Your task to perform on an android device: Find coffee shops on Maps Image 0: 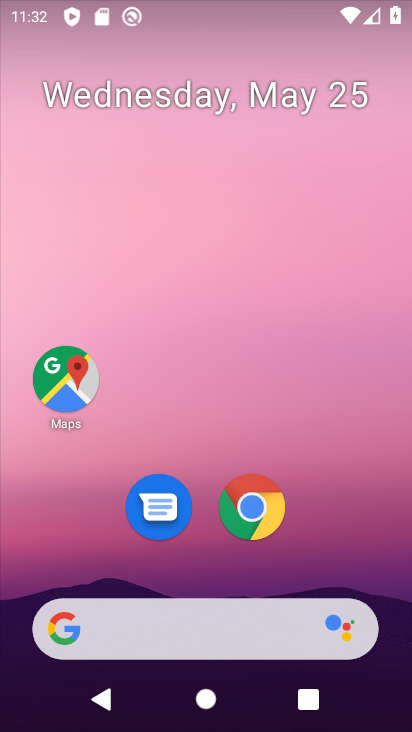
Step 0: click (68, 382)
Your task to perform on an android device: Find coffee shops on Maps Image 1: 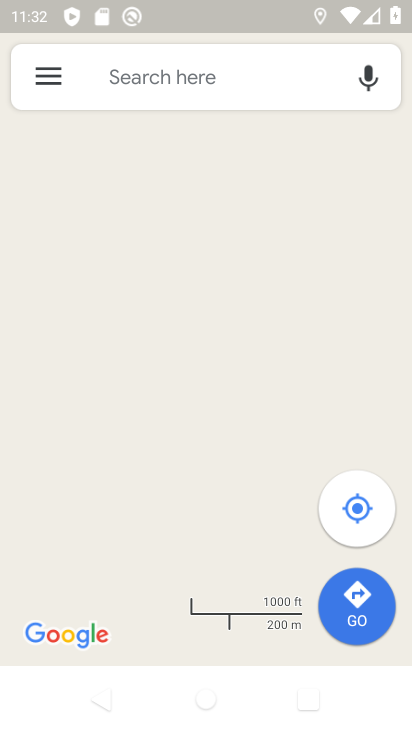
Step 1: click (194, 83)
Your task to perform on an android device: Find coffee shops on Maps Image 2: 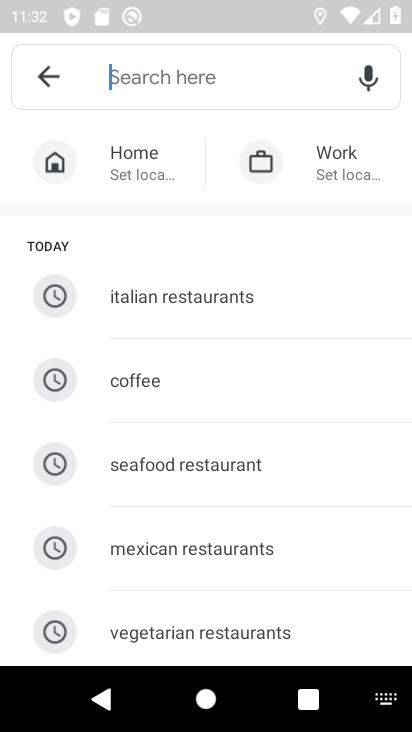
Step 2: type "coffee shops"
Your task to perform on an android device: Find coffee shops on Maps Image 3: 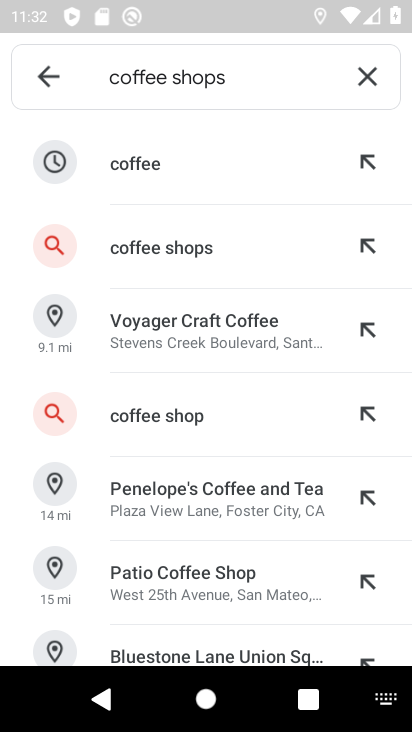
Step 3: click (194, 249)
Your task to perform on an android device: Find coffee shops on Maps Image 4: 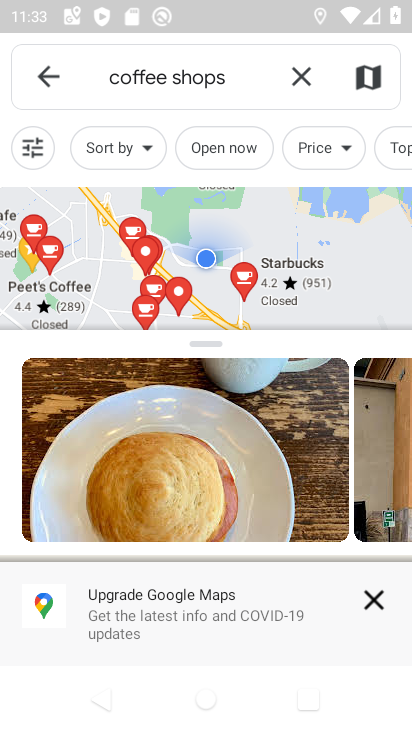
Step 4: click (375, 602)
Your task to perform on an android device: Find coffee shops on Maps Image 5: 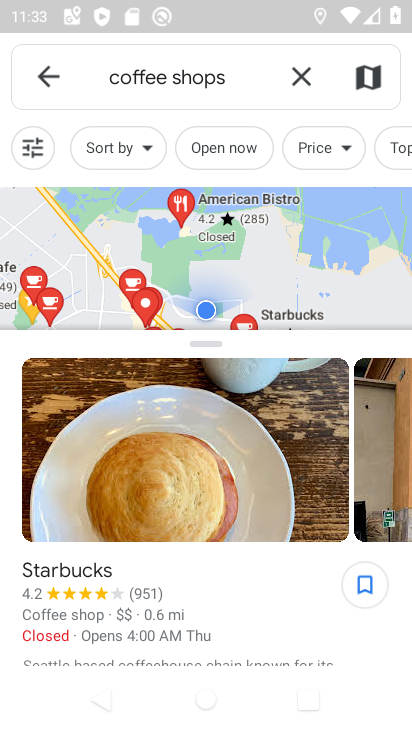
Step 5: task complete